Your task to perform on an android device: Go to Reddit.com Image 0: 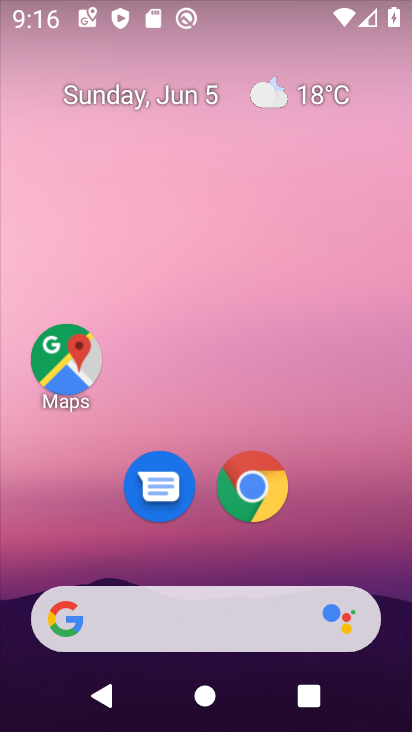
Step 0: drag from (379, 510) to (363, 143)
Your task to perform on an android device: Go to Reddit.com Image 1: 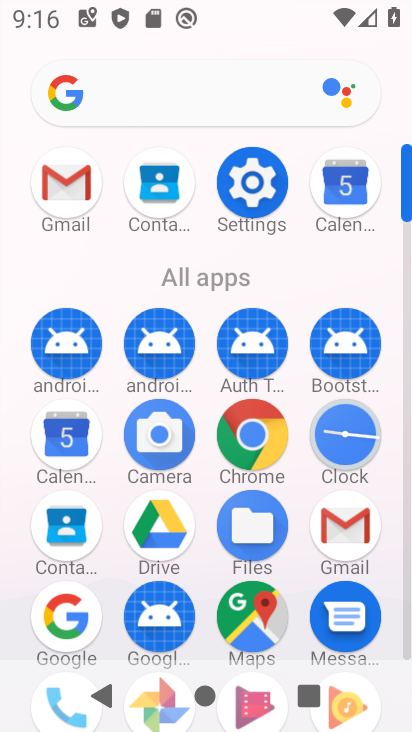
Step 1: click (278, 447)
Your task to perform on an android device: Go to Reddit.com Image 2: 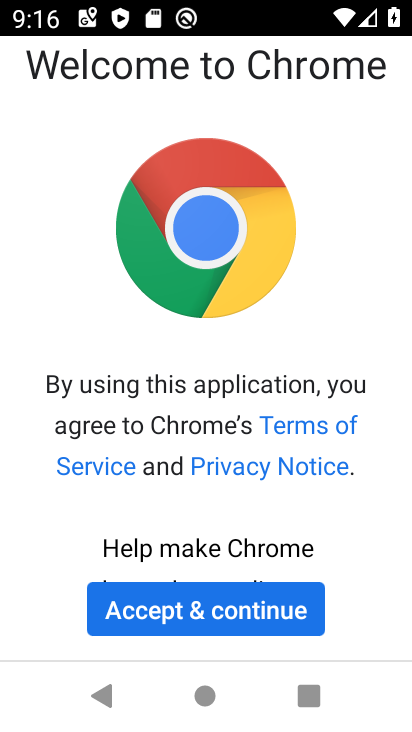
Step 2: click (227, 625)
Your task to perform on an android device: Go to Reddit.com Image 3: 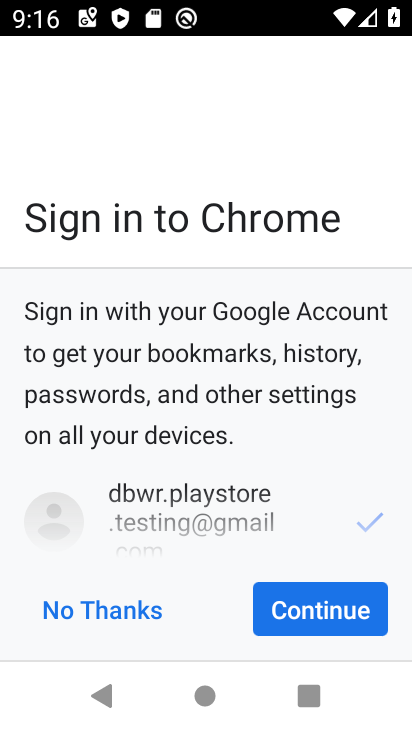
Step 3: click (306, 608)
Your task to perform on an android device: Go to Reddit.com Image 4: 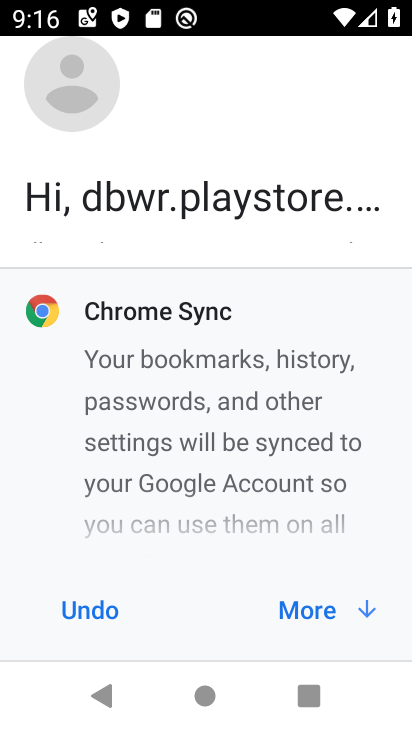
Step 4: click (312, 607)
Your task to perform on an android device: Go to Reddit.com Image 5: 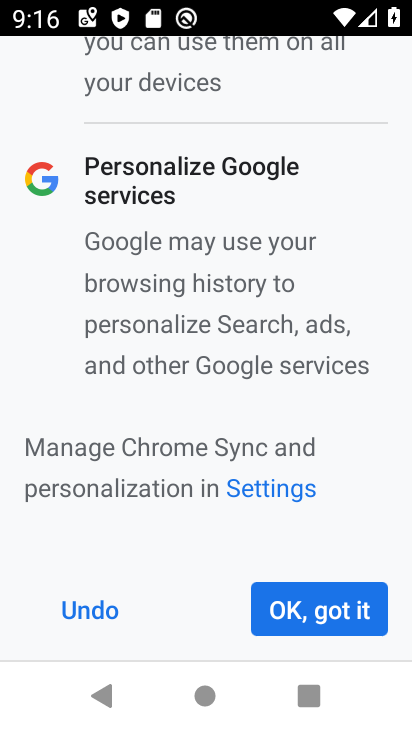
Step 5: click (312, 607)
Your task to perform on an android device: Go to Reddit.com Image 6: 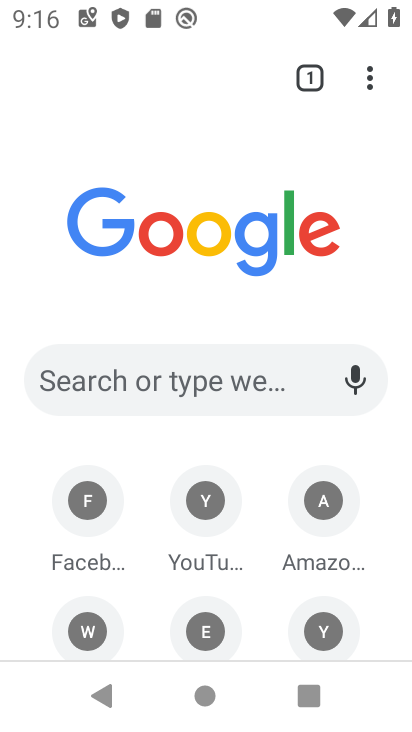
Step 6: click (151, 387)
Your task to perform on an android device: Go to Reddit.com Image 7: 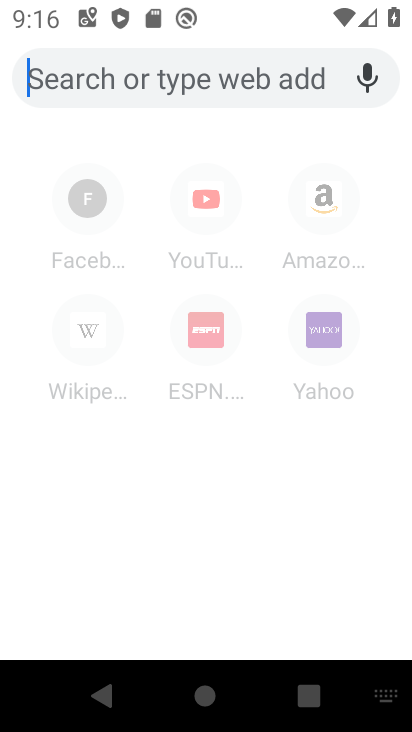
Step 7: type "reddit.com"
Your task to perform on an android device: Go to Reddit.com Image 8: 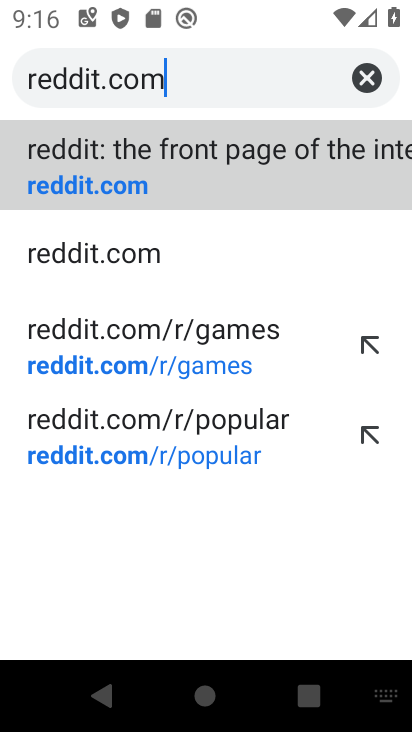
Step 8: click (139, 169)
Your task to perform on an android device: Go to Reddit.com Image 9: 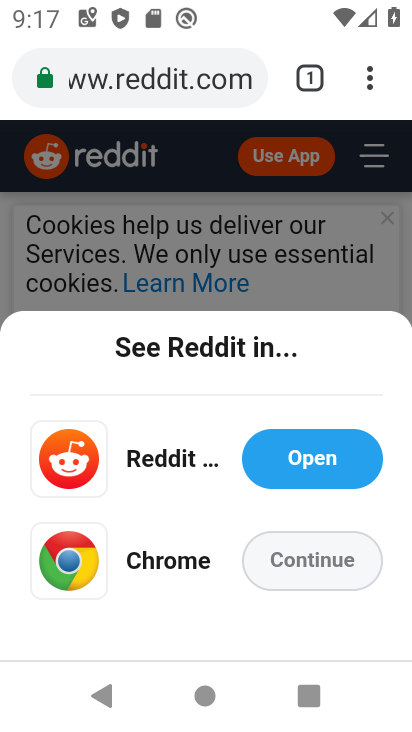
Step 9: task complete